Your task to perform on an android device: What is the recent news? Image 0: 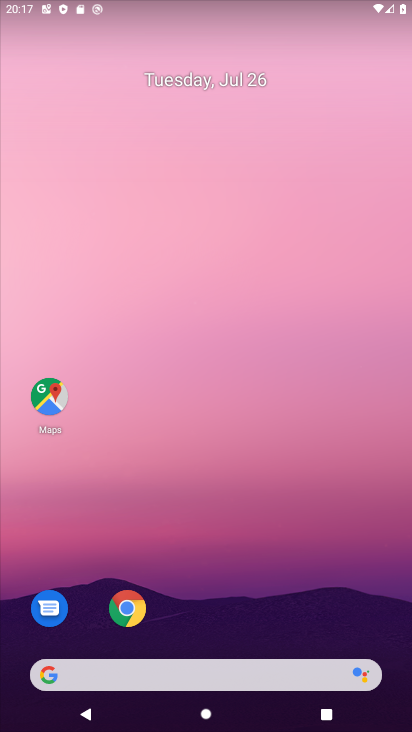
Step 0: click (109, 674)
Your task to perform on an android device: What is the recent news? Image 1: 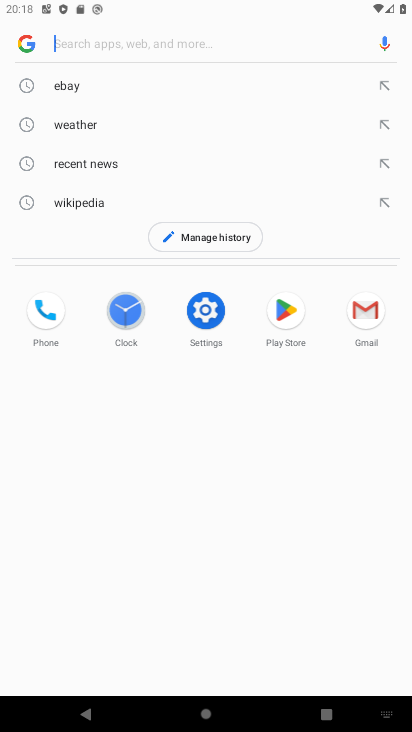
Step 1: type "What is the recent news?"
Your task to perform on an android device: What is the recent news? Image 2: 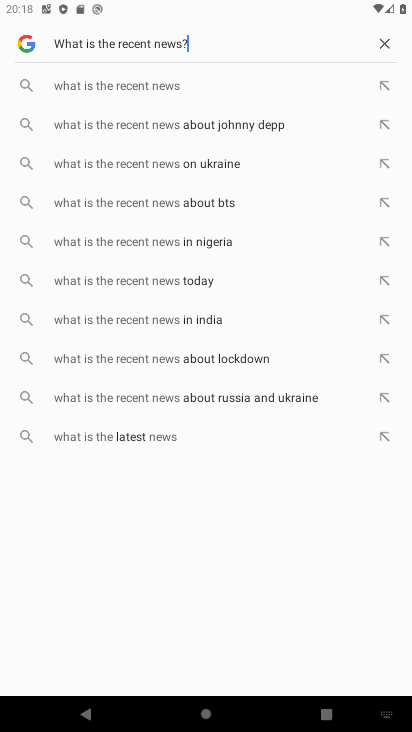
Step 2: type ""
Your task to perform on an android device: What is the recent news? Image 3: 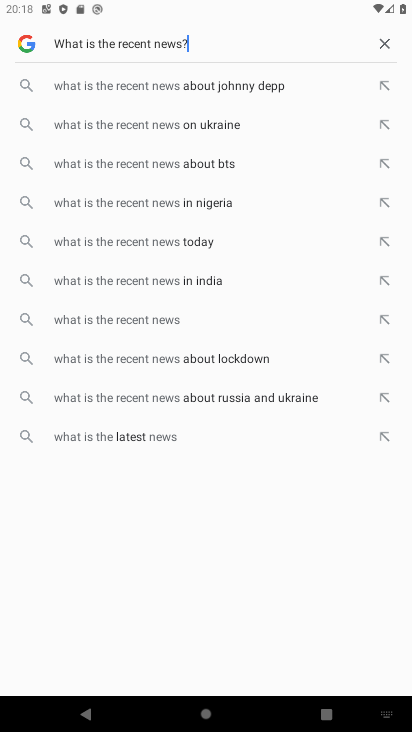
Step 3: type ""
Your task to perform on an android device: What is the recent news? Image 4: 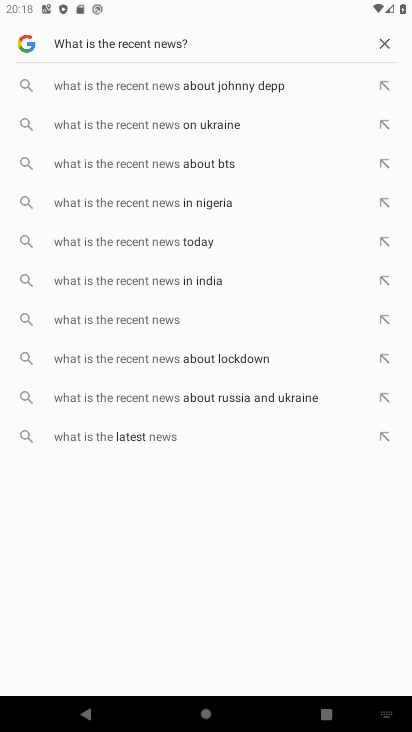
Step 4: type ""
Your task to perform on an android device: What is the recent news? Image 5: 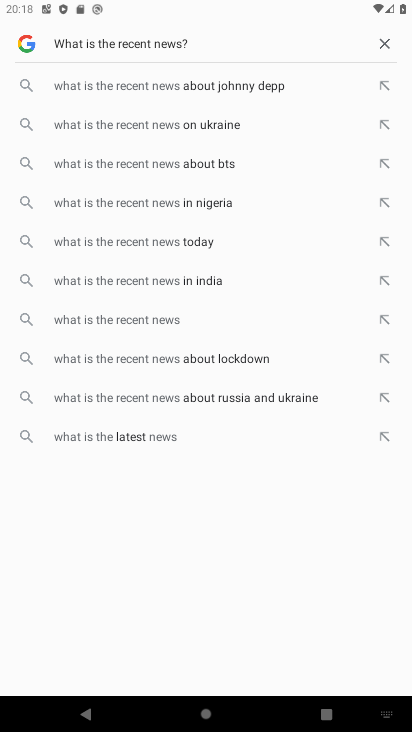
Step 5: task complete